Your task to perform on an android device: Open location settings Image 0: 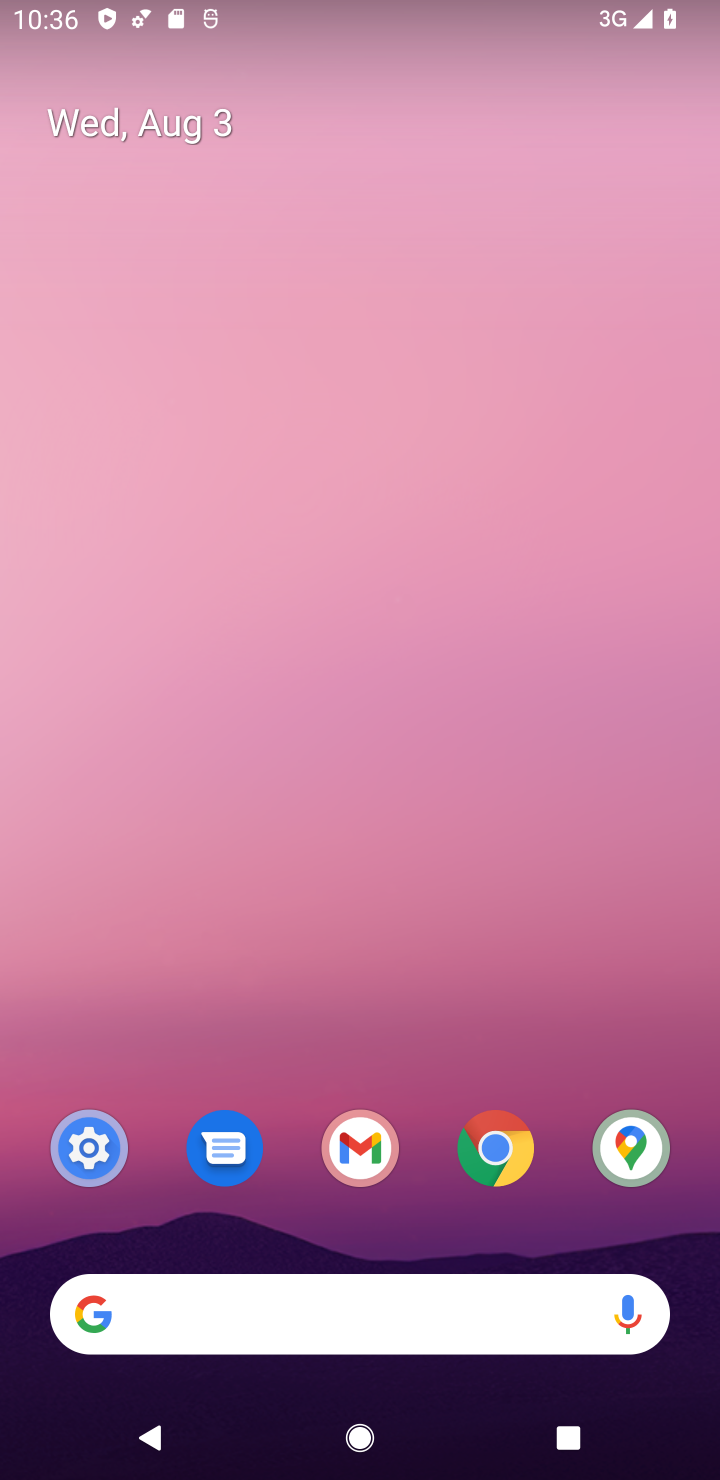
Step 0: drag from (588, 1049) to (511, 131)
Your task to perform on an android device: Open location settings Image 1: 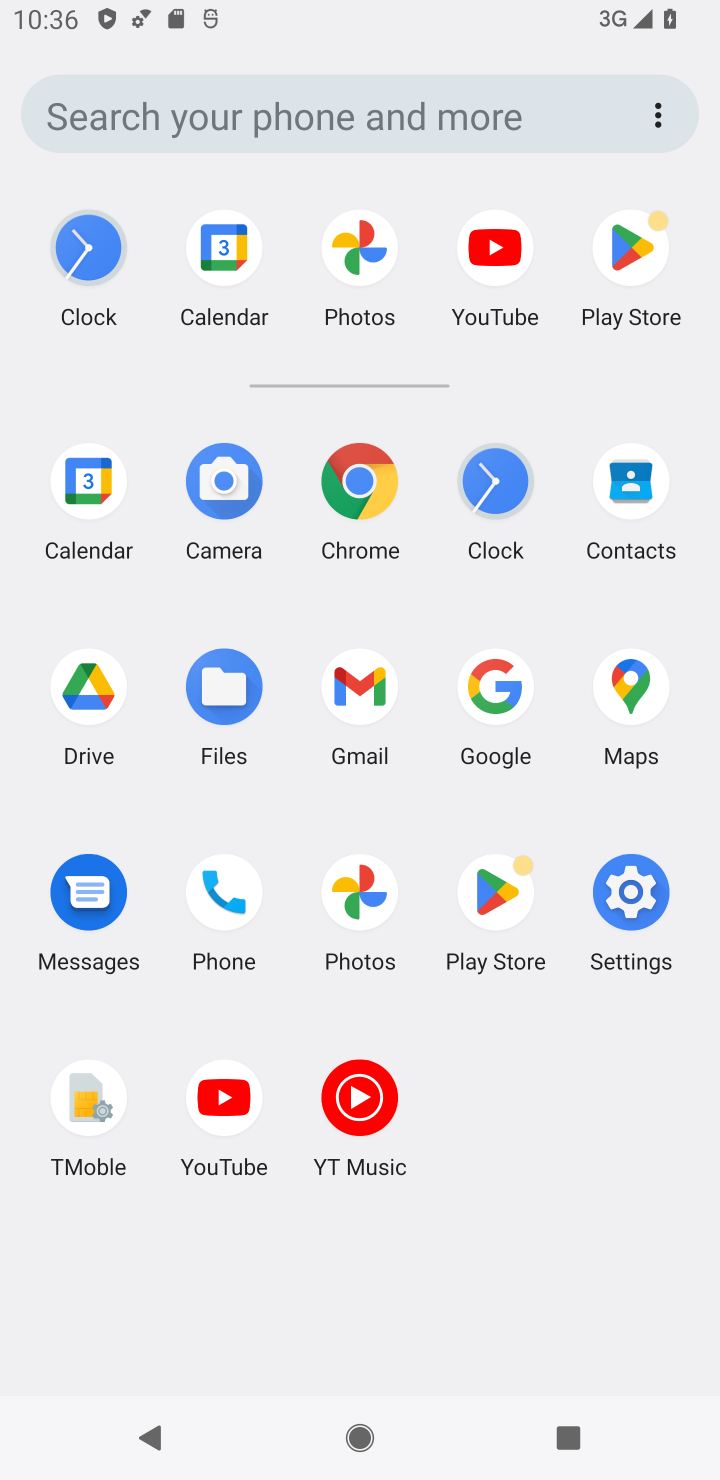
Step 1: click (629, 908)
Your task to perform on an android device: Open location settings Image 2: 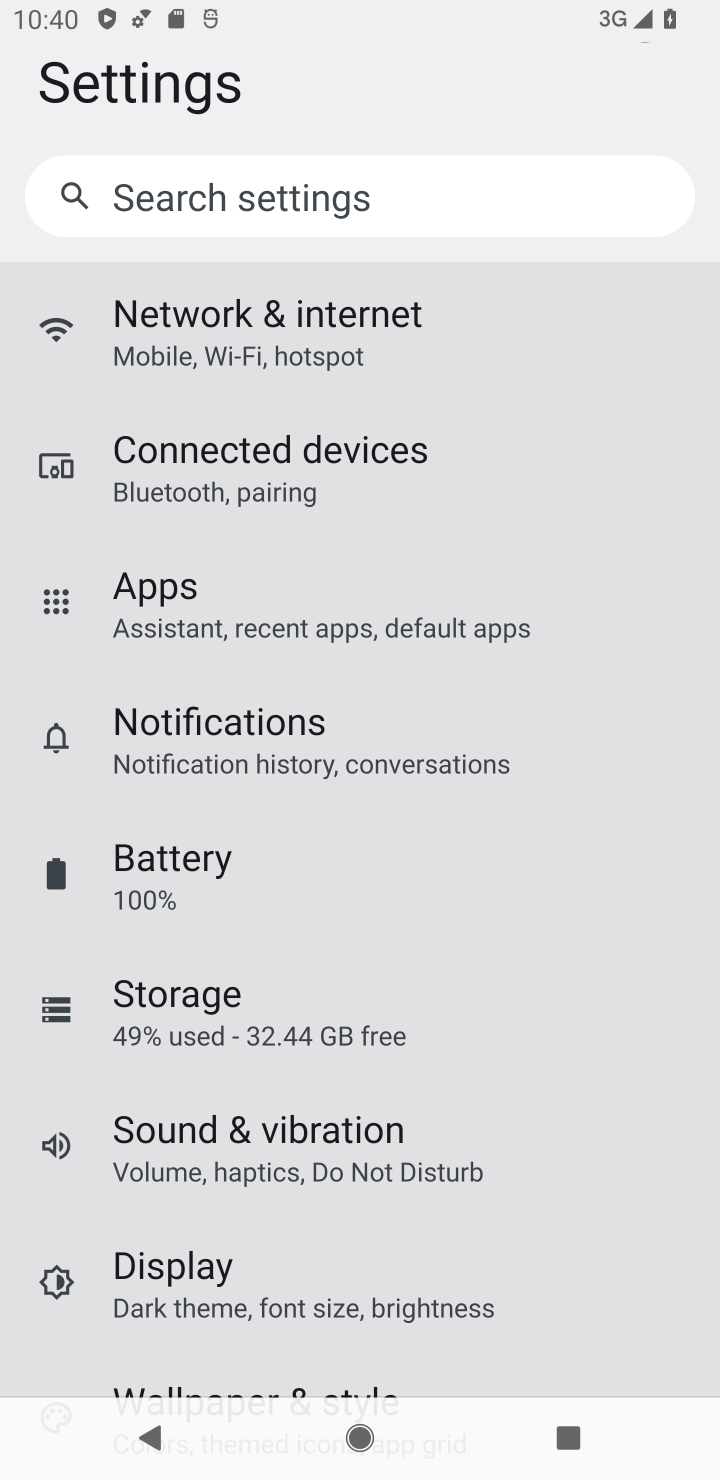
Step 2: click (629, 908)
Your task to perform on an android device: Open location settings Image 3: 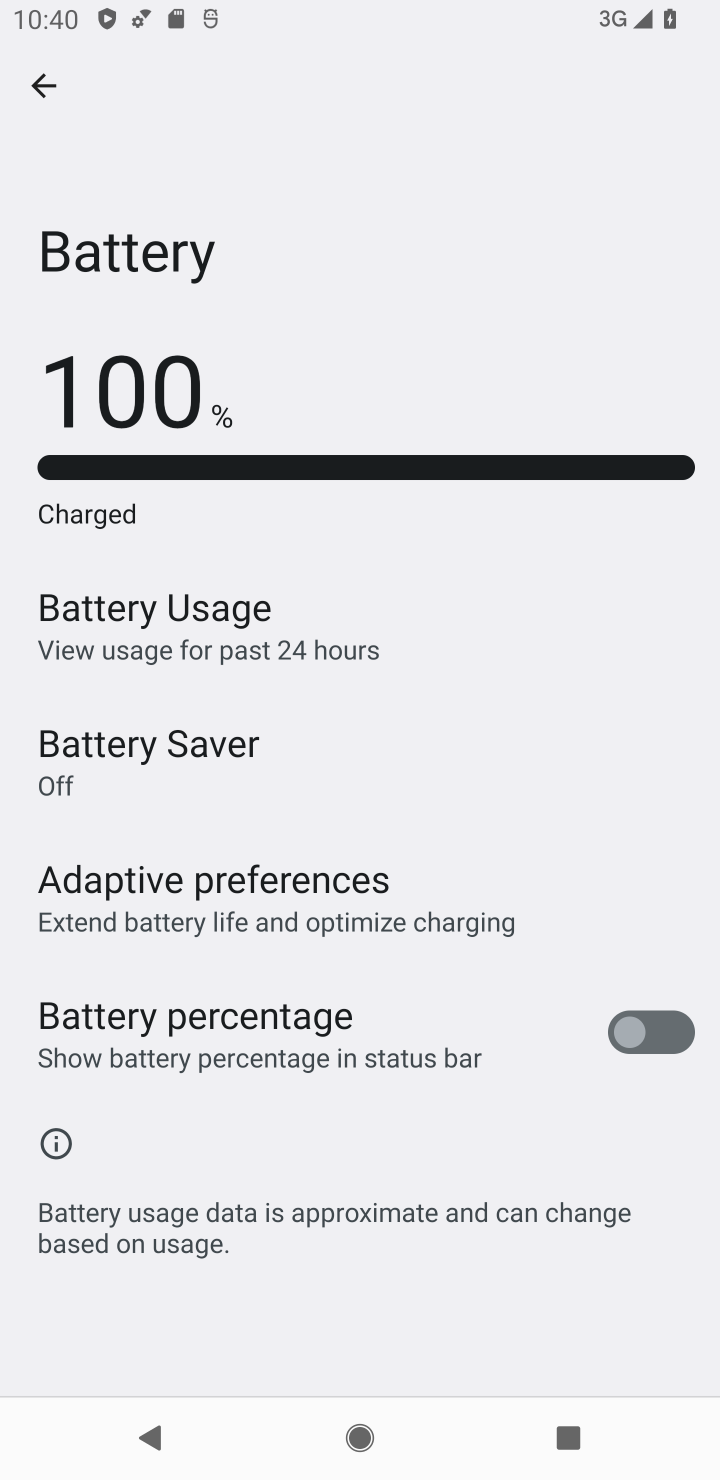
Step 3: press home button
Your task to perform on an android device: Open location settings Image 4: 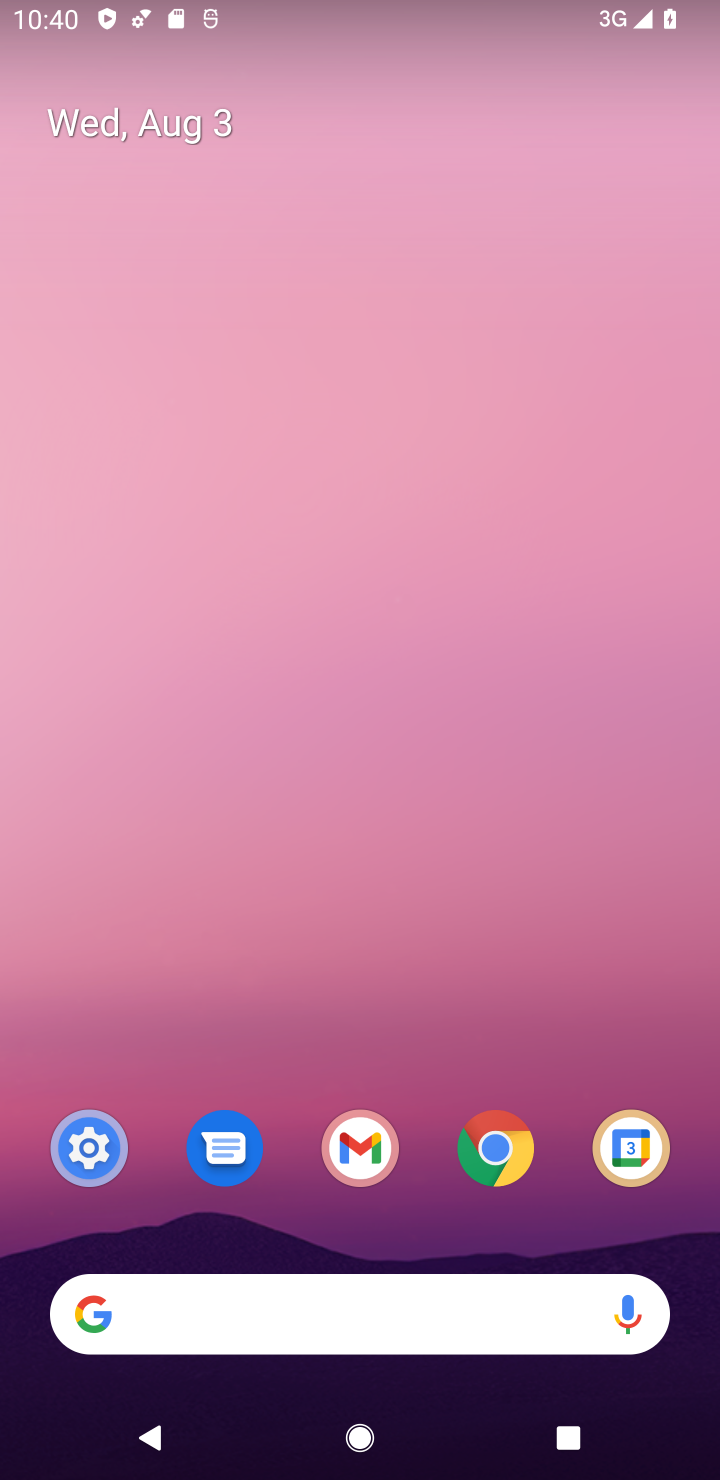
Step 4: drag from (355, 884) to (379, 374)
Your task to perform on an android device: Open location settings Image 5: 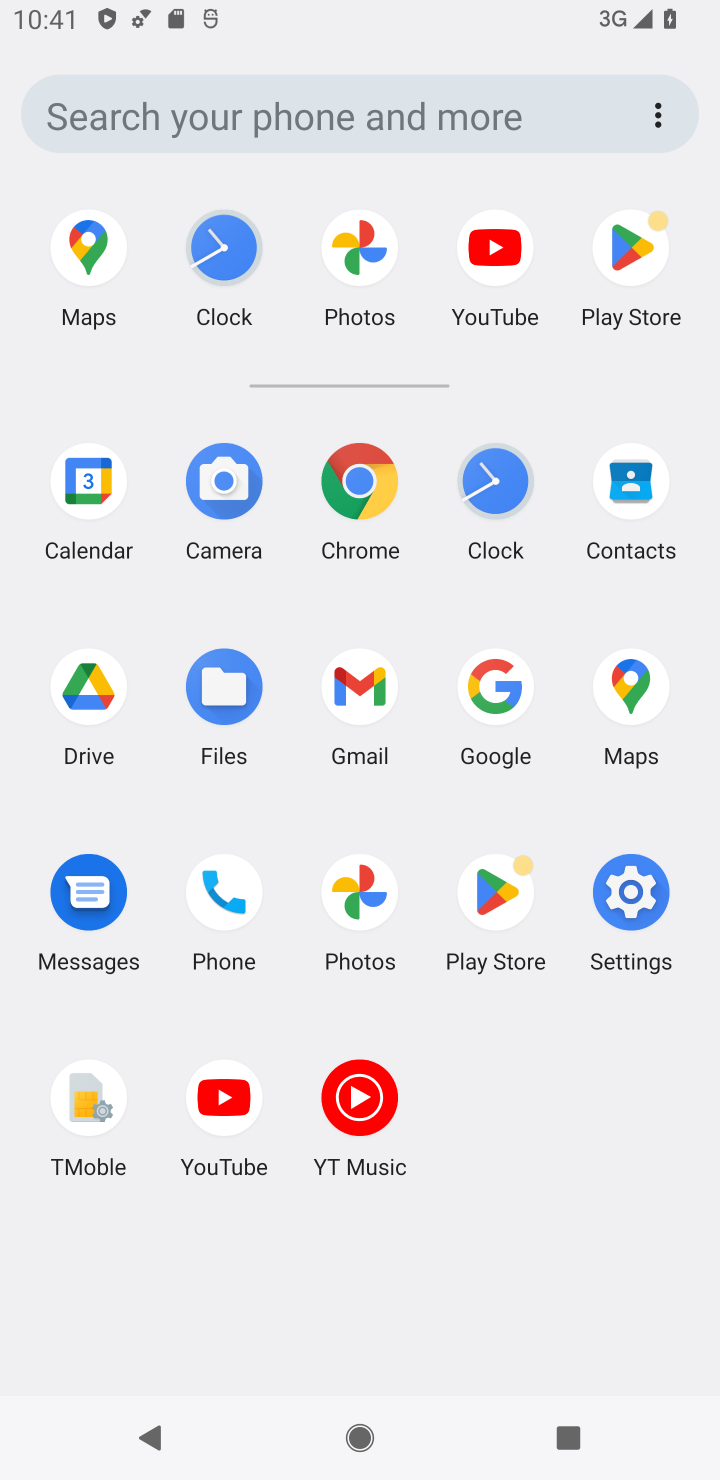
Step 5: click (644, 920)
Your task to perform on an android device: Open location settings Image 6: 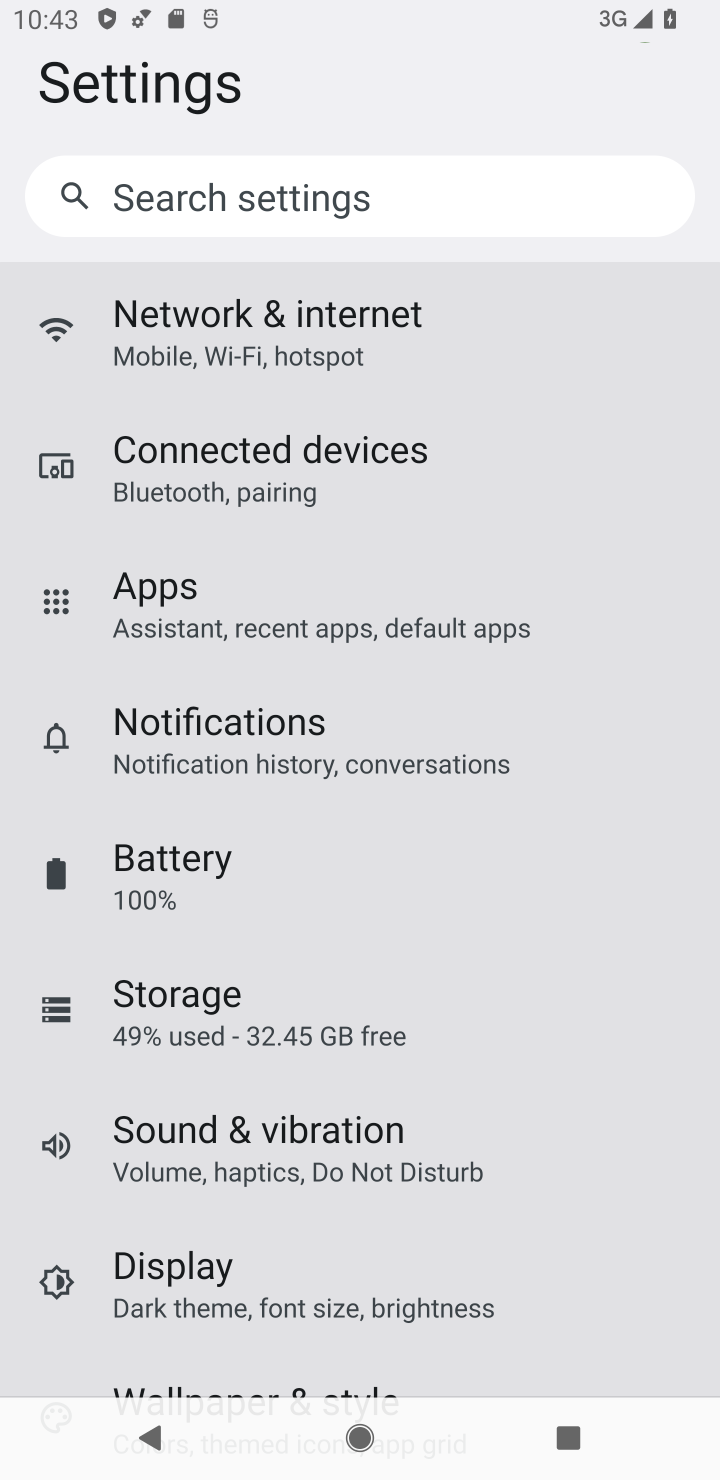
Step 6: press home button
Your task to perform on an android device: Open location settings Image 7: 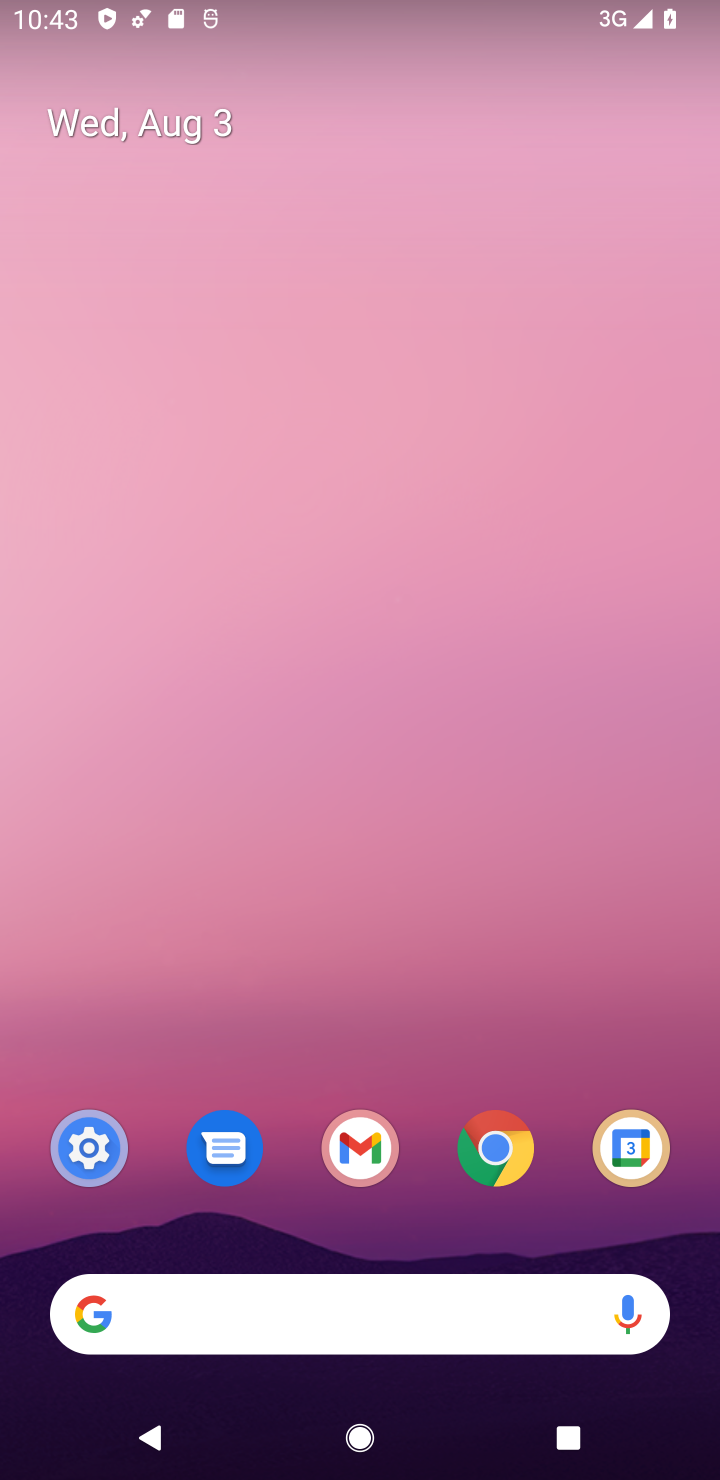
Step 7: click (94, 1156)
Your task to perform on an android device: Open location settings Image 8: 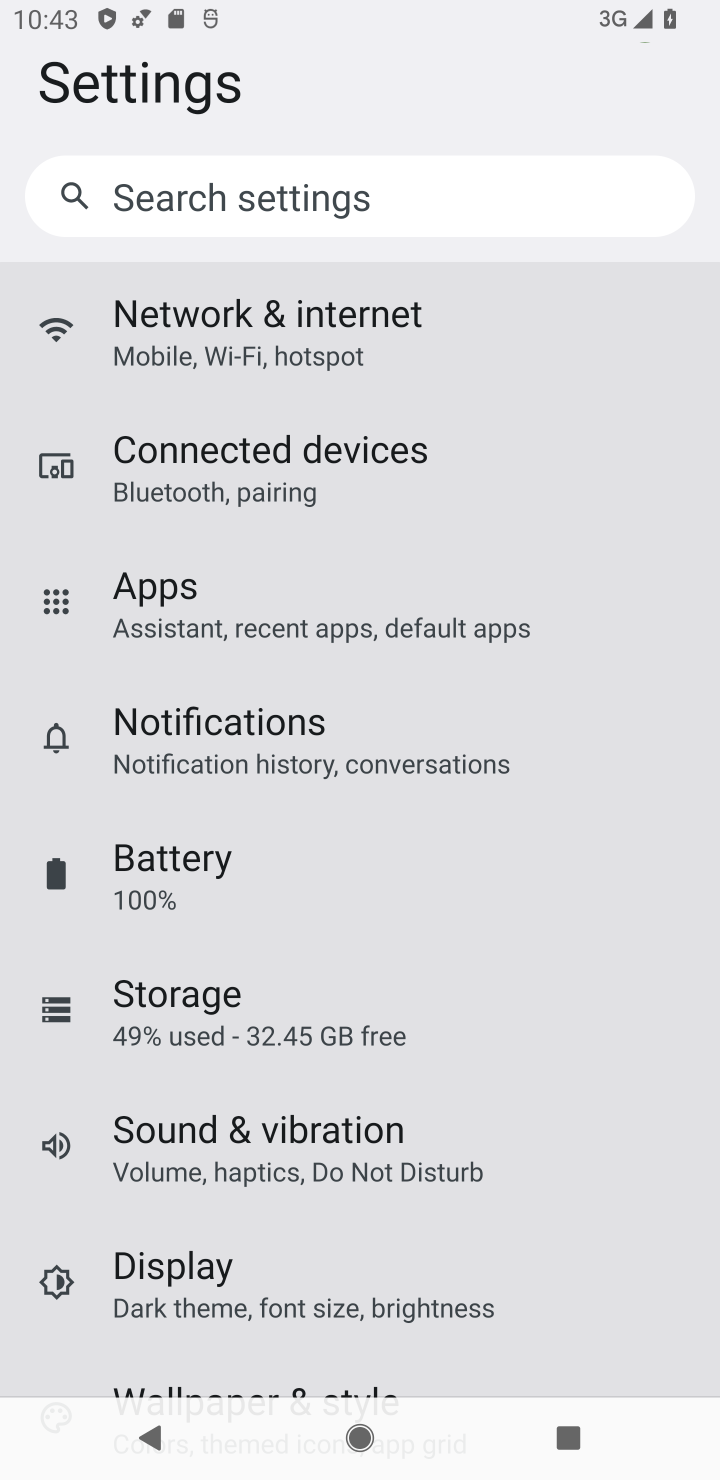
Step 8: task complete